Your task to perform on an android device: turn on improve location accuracy Image 0: 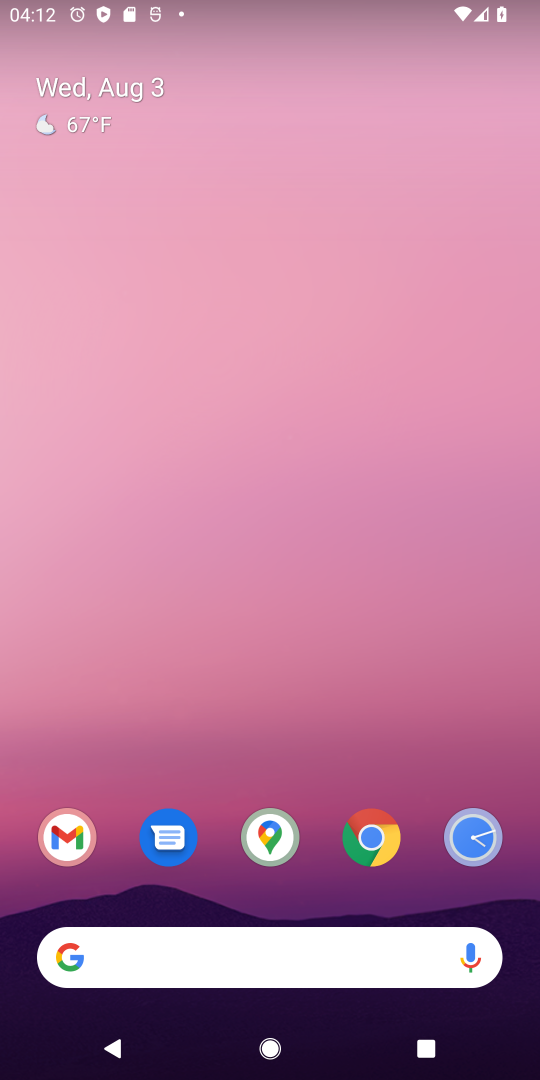
Step 0: drag from (433, 869) to (327, 144)
Your task to perform on an android device: turn on improve location accuracy Image 1: 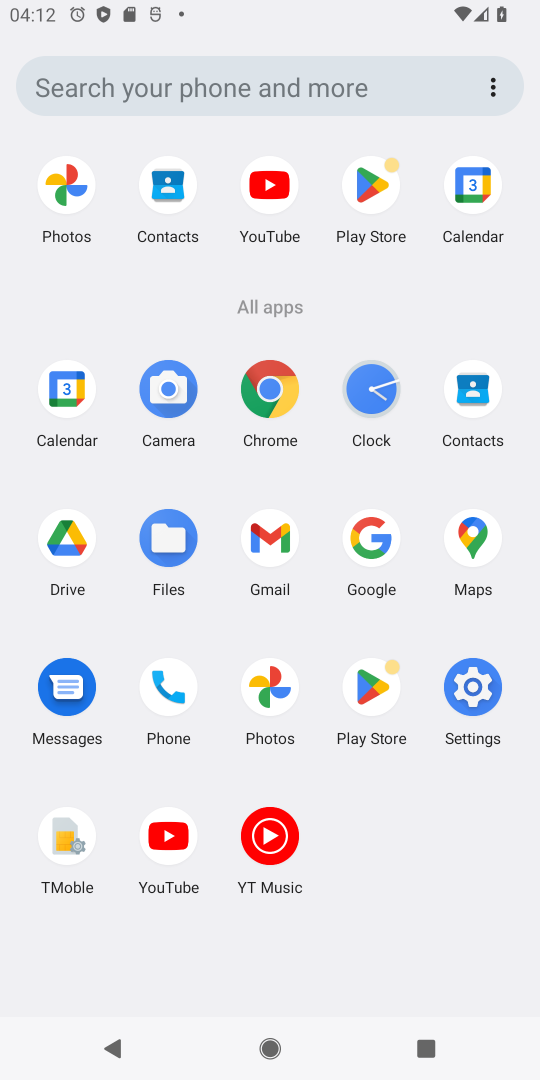
Step 1: click (473, 689)
Your task to perform on an android device: turn on improve location accuracy Image 2: 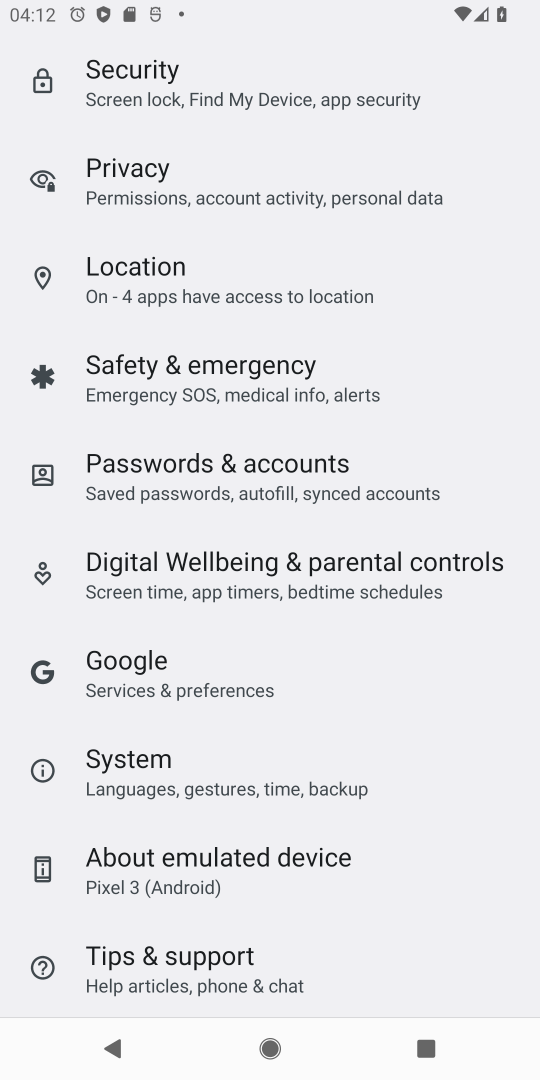
Step 2: click (151, 265)
Your task to perform on an android device: turn on improve location accuracy Image 3: 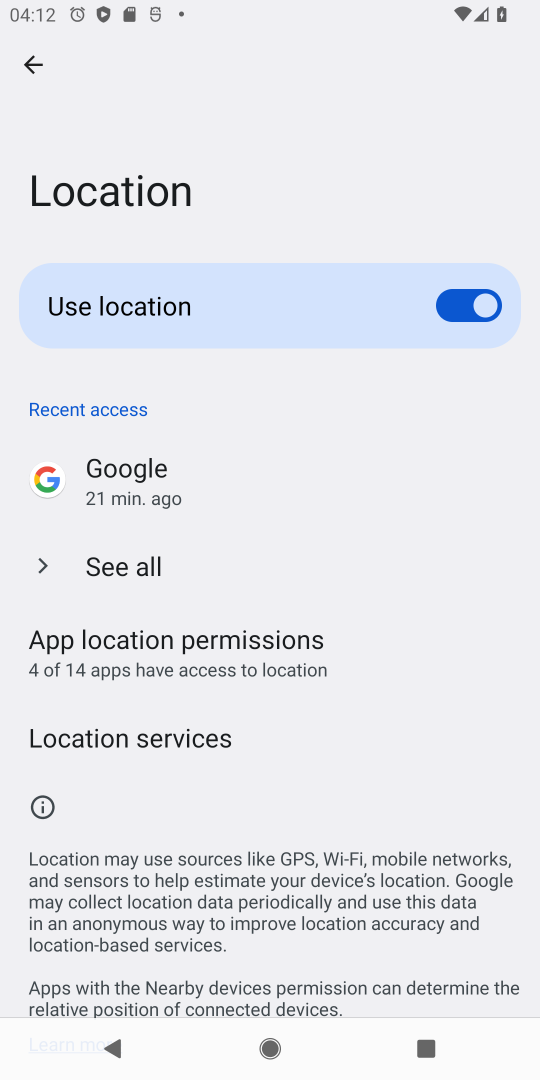
Step 3: click (134, 739)
Your task to perform on an android device: turn on improve location accuracy Image 4: 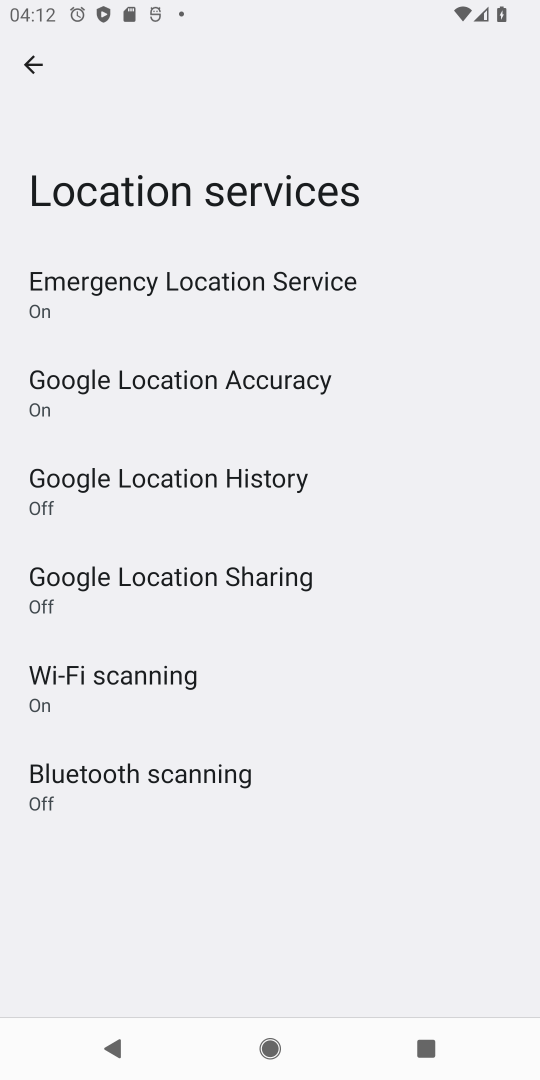
Step 4: click (132, 378)
Your task to perform on an android device: turn on improve location accuracy Image 5: 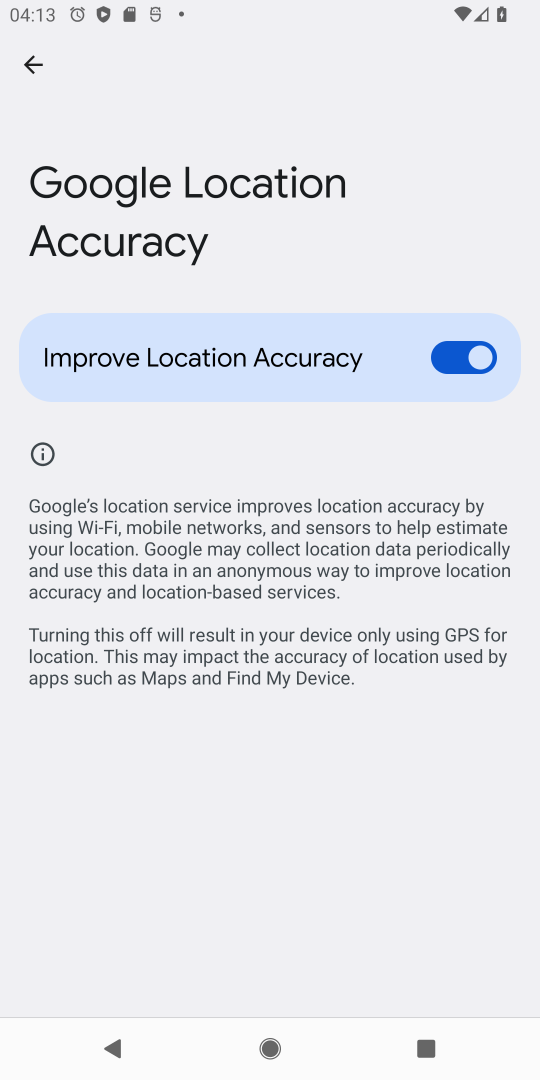
Step 5: task complete